Your task to perform on an android device: change timer sound Image 0: 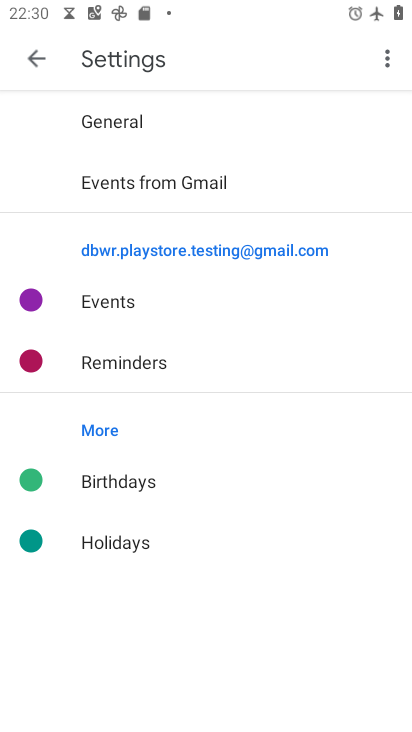
Step 0: press home button
Your task to perform on an android device: change timer sound Image 1: 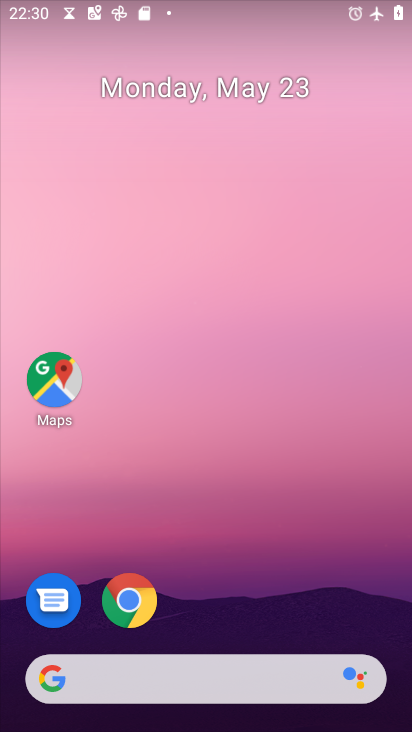
Step 1: drag from (181, 725) to (173, 102)
Your task to perform on an android device: change timer sound Image 2: 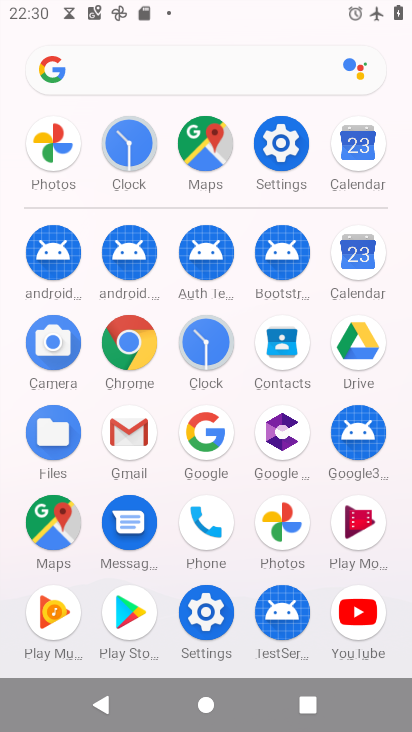
Step 2: click (206, 352)
Your task to perform on an android device: change timer sound Image 3: 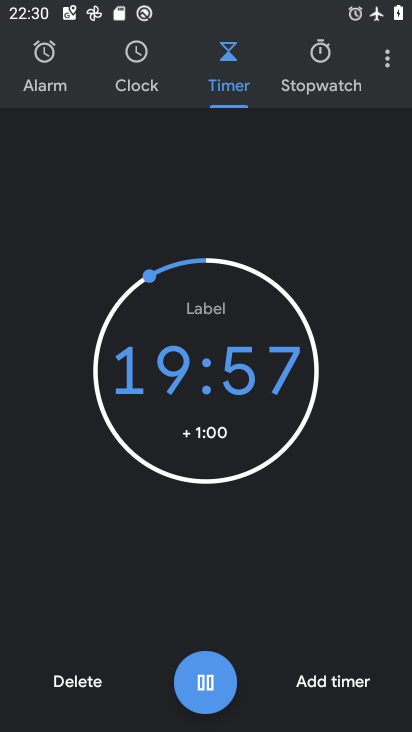
Step 3: click (387, 61)
Your task to perform on an android device: change timer sound Image 4: 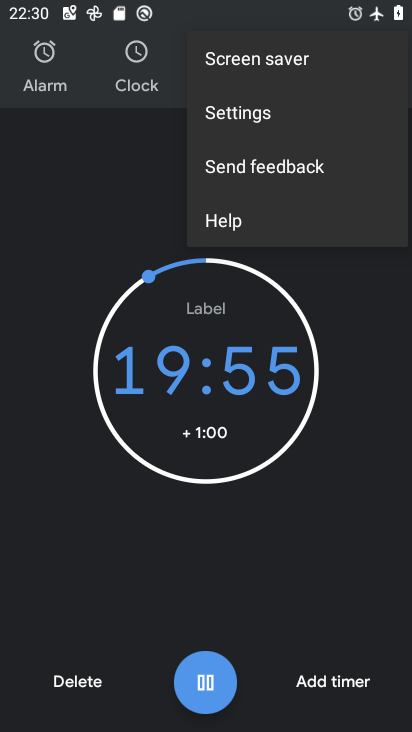
Step 4: click (243, 118)
Your task to perform on an android device: change timer sound Image 5: 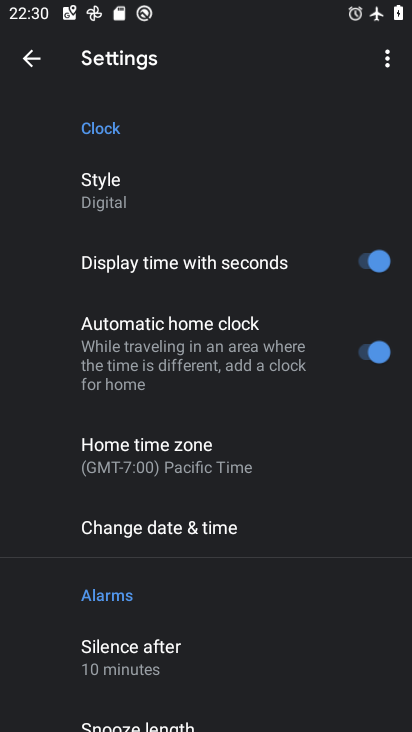
Step 5: drag from (157, 646) to (154, 373)
Your task to perform on an android device: change timer sound Image 6: 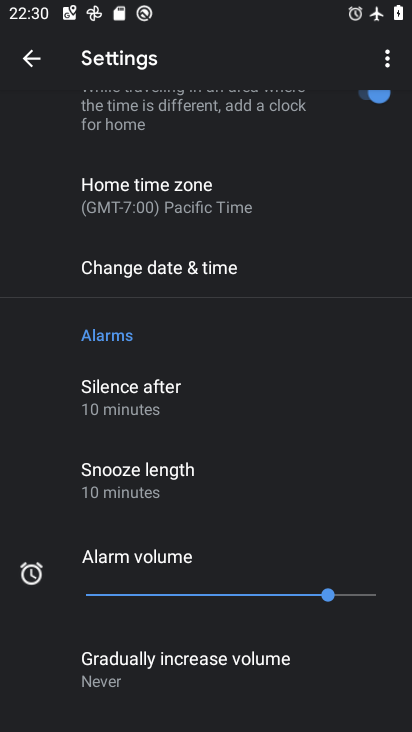
Step 6: drag from (187, 685) to (186, 301)
Your task to perform on an android device: change timer sound Image 7: 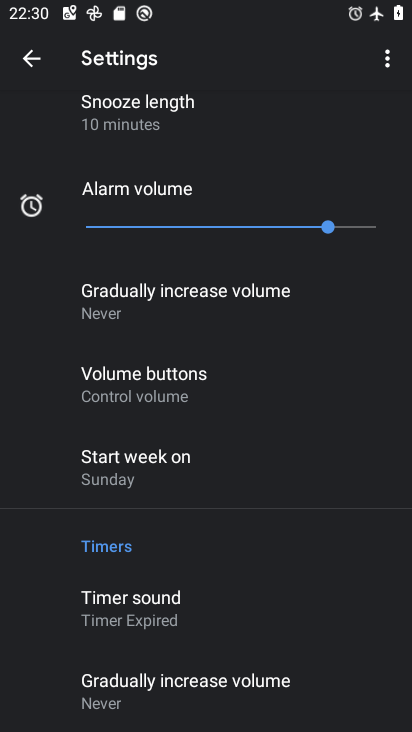
Step 7: click (136, 612)
Your task to perform on an android device: change timer sound Image 8: 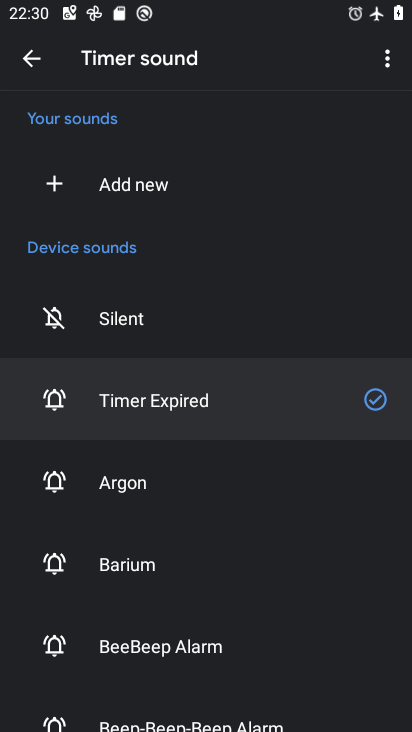
Step 8: click (151, 647)
Your task to perform on an android device: change timer sound Image 9: 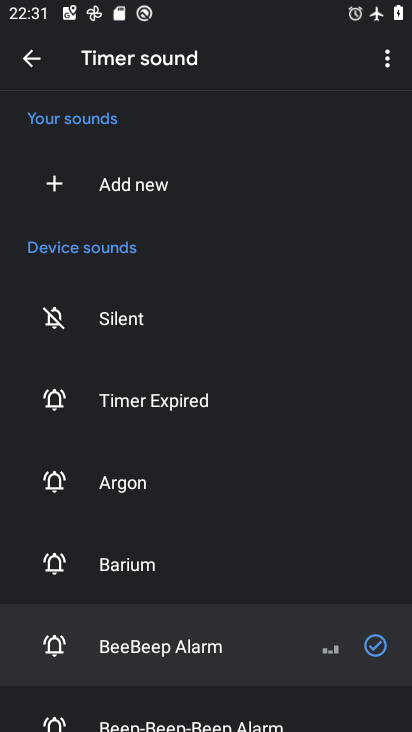
Step 9: task complete